Your task to perform on an android device: install app "YouTube Kids" Image 0: 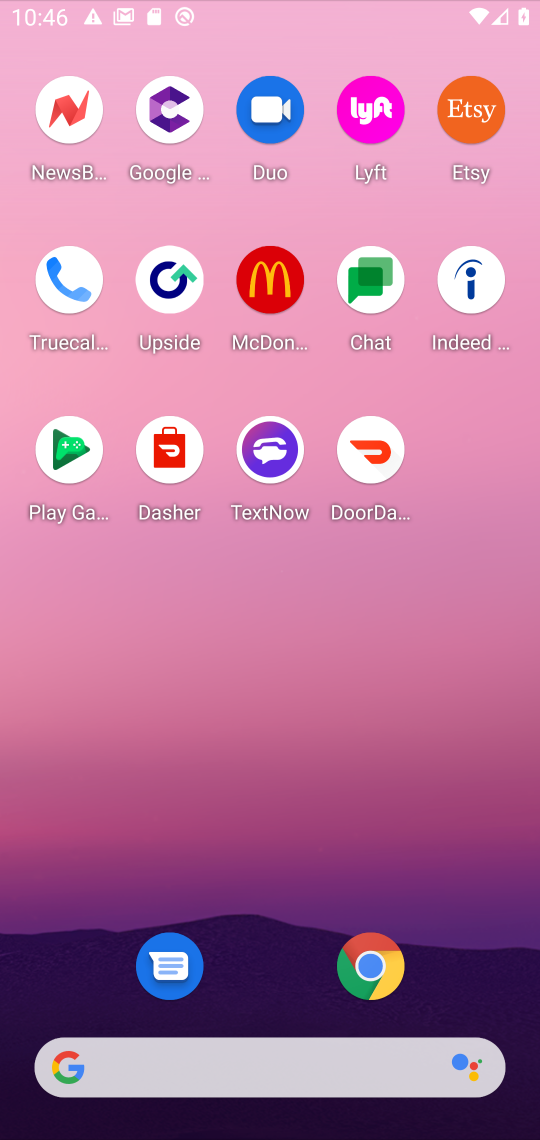
Step 0: press home button
Your task to perform on an android device: install app "YouTube Kids" Image 1: 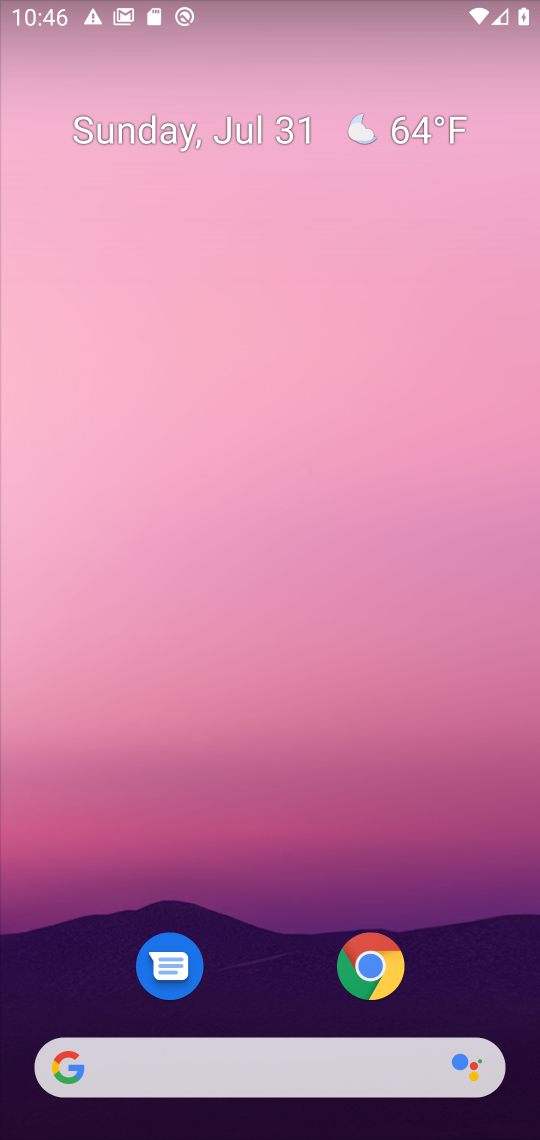
Step 1: drag from (270, 922) to (292, 21)
Your task to perform on an android device: install app "YouTube Kids" Image 2: 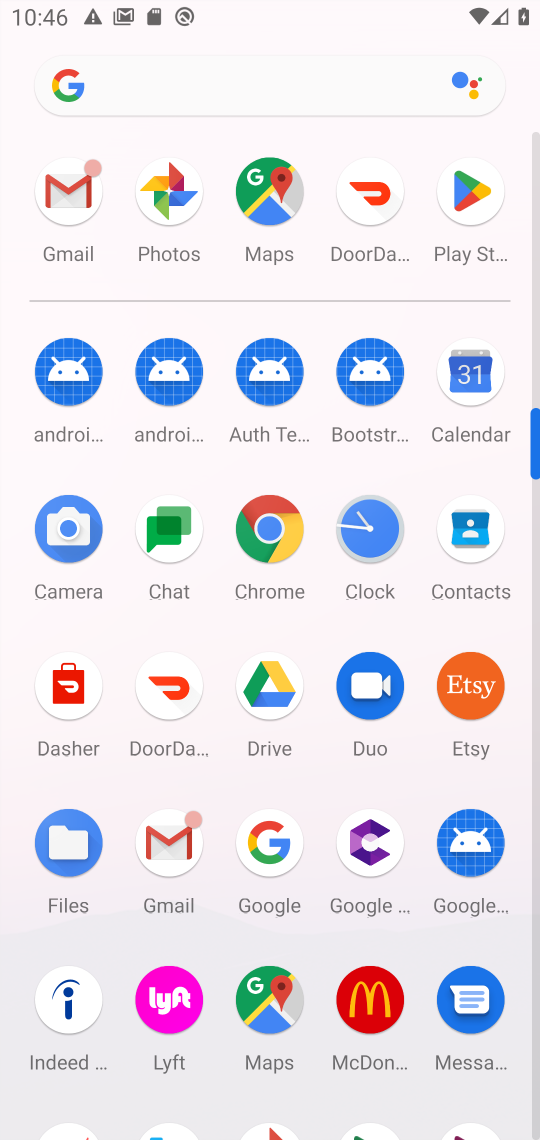
Step 2: click (470, 236)
Your task to perform on an android device: install app "YouTube Kids" Image 3: 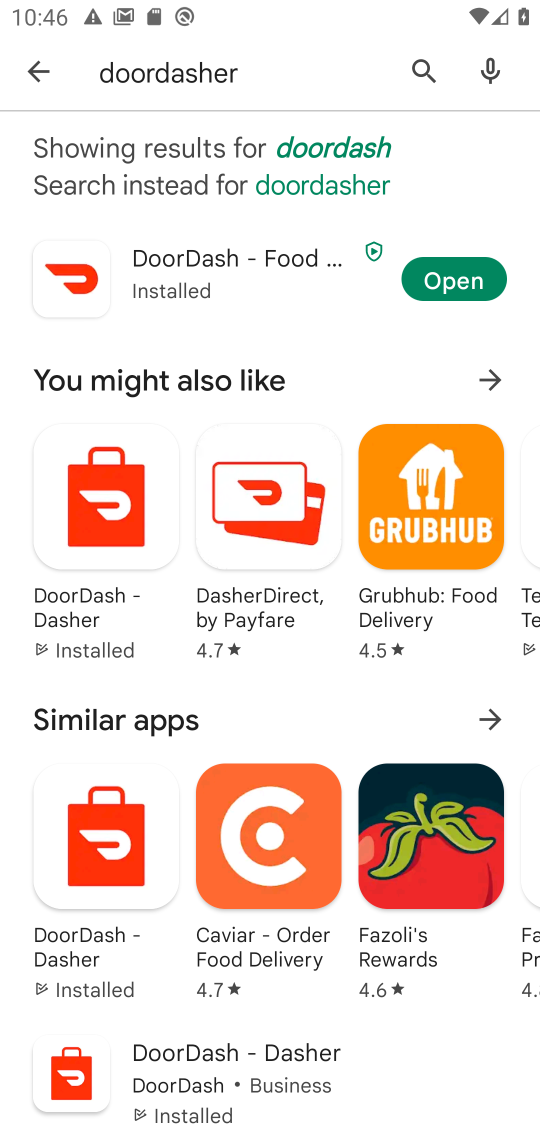
Step 3: click (269, 52)
Your task to perform on an android device: install app "YouTube Kids" Image 4: 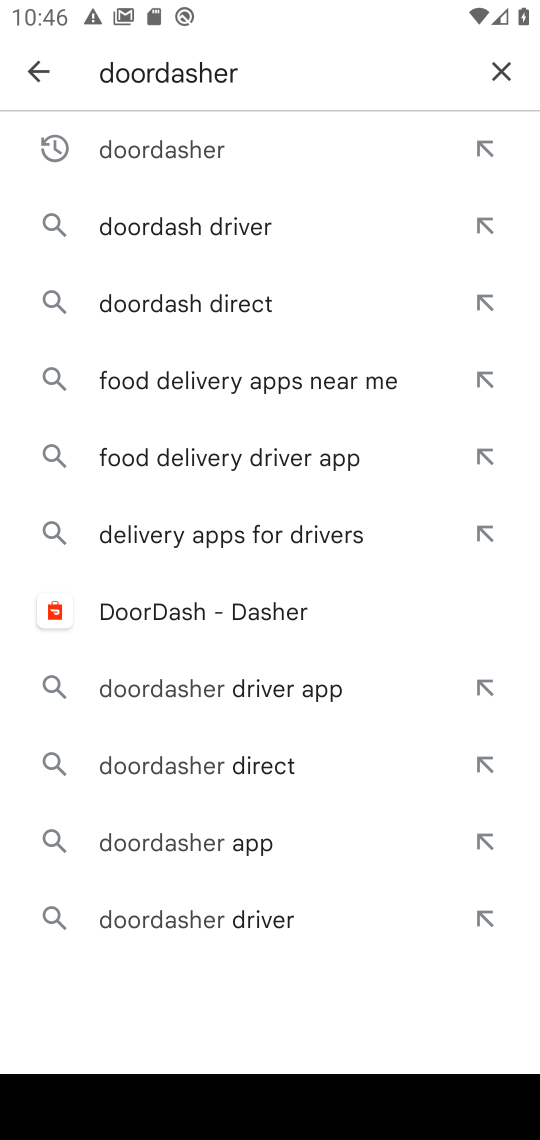
Step 4: click (501, 71)
Your task to perform on an android device: install app "YouTube Kids" Image 5: 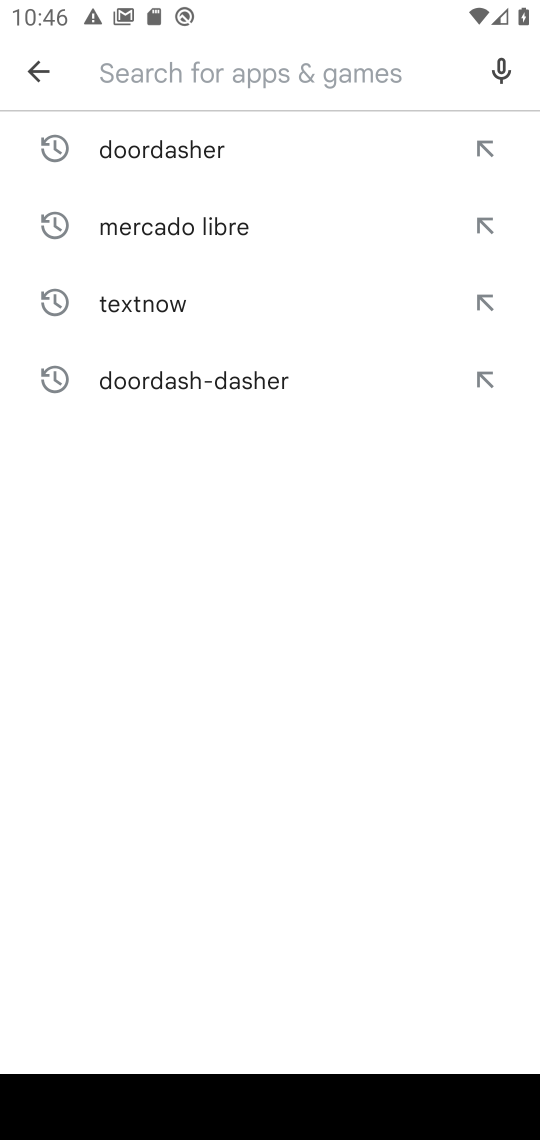
Step 5: type "youtube kids"
Your task to perform on an android device: install app "YouTube Kids" Image 6: 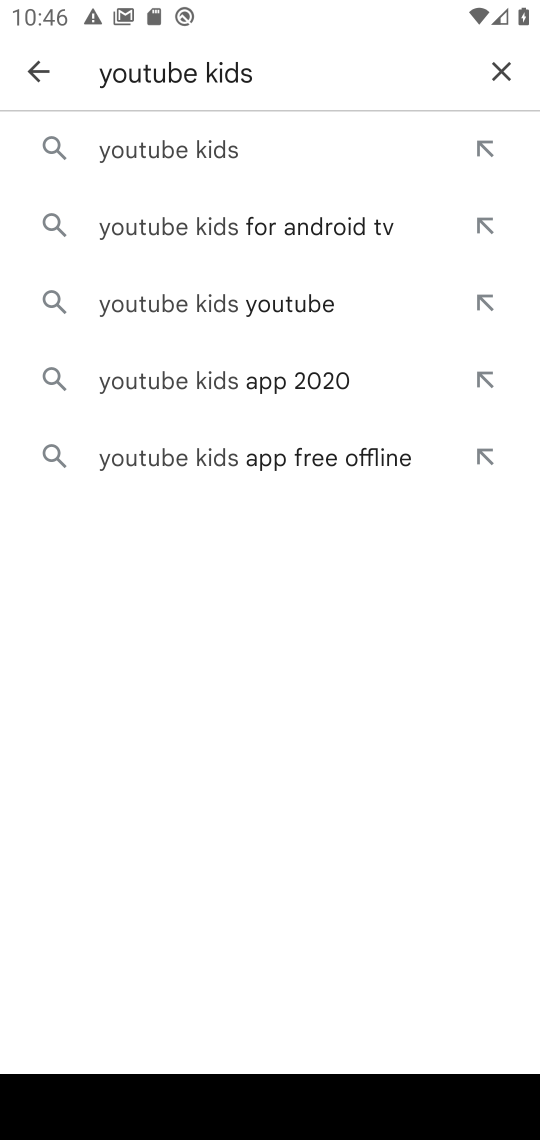
Step 6: click (200, 147)
Your task to perform on an android device: install app "YouTube Kids" Image 7: 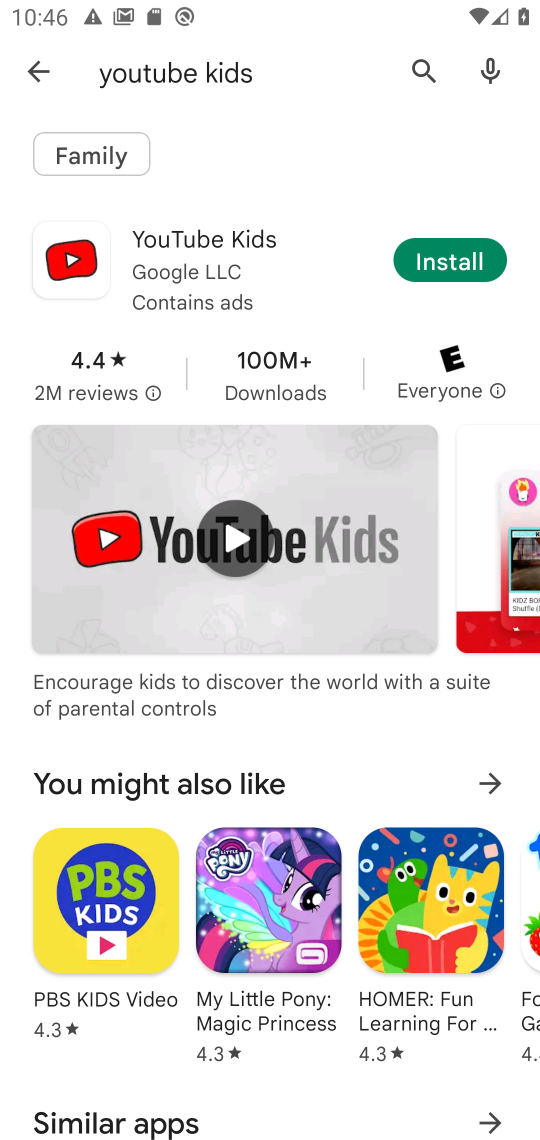
Step 7: click (466, 260)
Your task to perform on an android device: install app "YouTube Kids" Image 8: 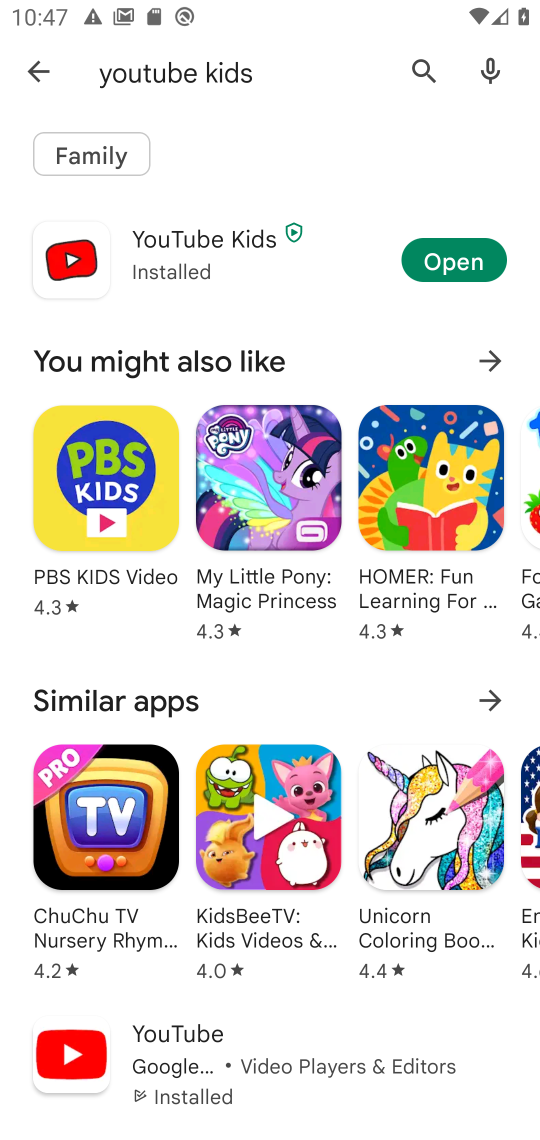
Step 8: task complete